Your task to perform on an android device: turn on the 12-hour format for clock Image 0: 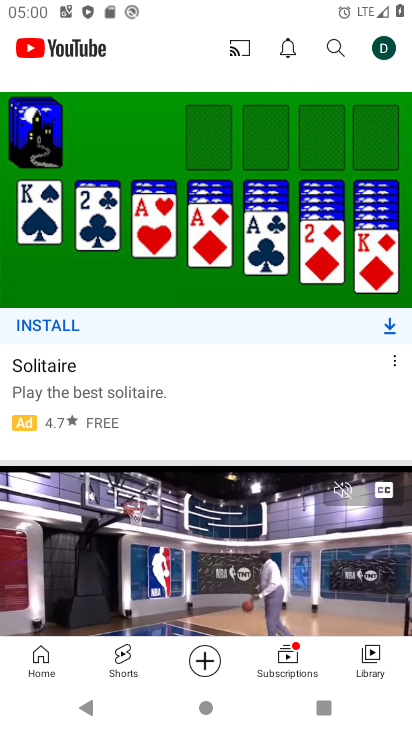
Step 0: press home button
Your task to perform on an android device: turn on the 12-hour format for clock Image 1: 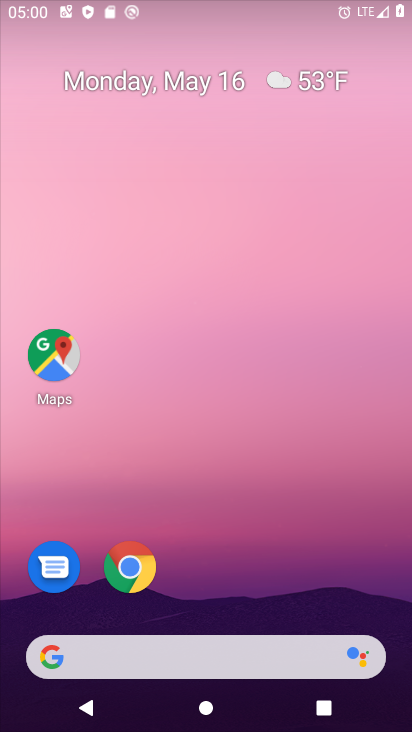
Step 1: drag from (380, 655) to (405, 695)
Your task to perform on an android device: turn on the 12-hour format for clock Image 2: 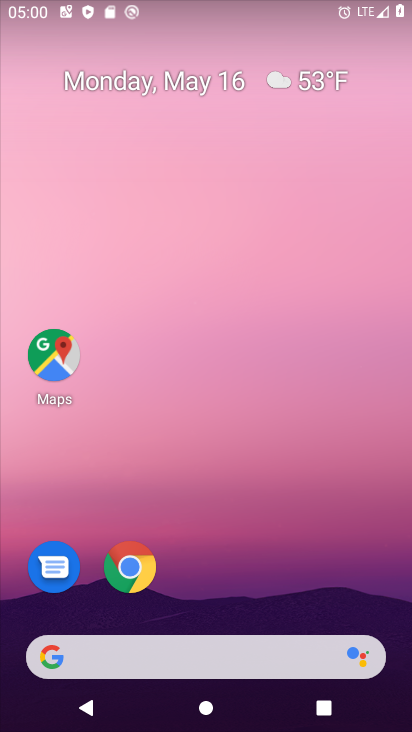
Step 2: click (220, 340)
Your task to perform on an android device: turn on the 12-hour format for clock Image 3: 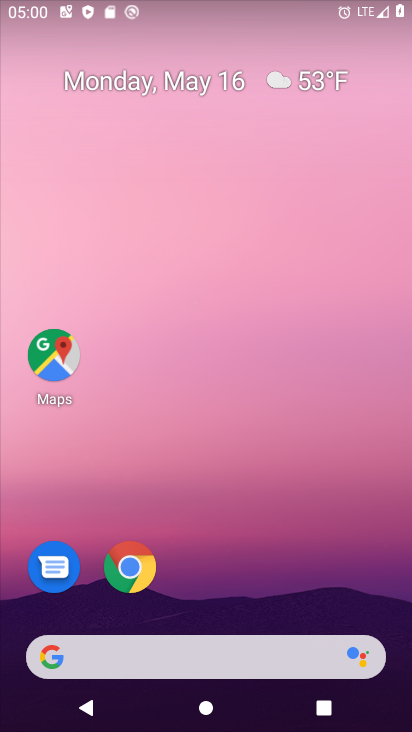
Step 3: drag from (227, 660) to (268, 143)
Your task to perform on an android device: turn on the 12-hour format for clock Image 4: 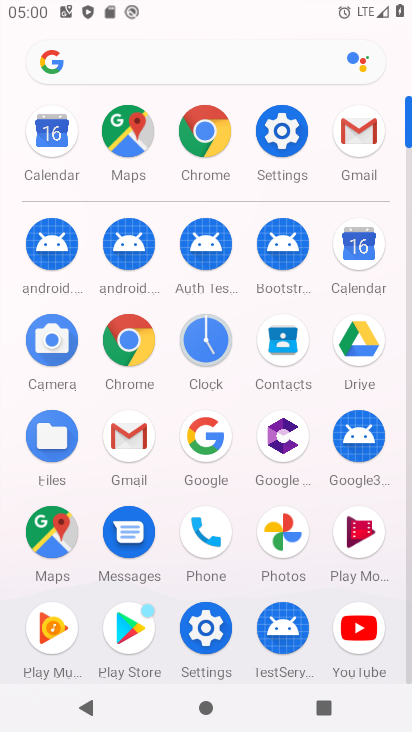
Step 4: click (212, 331)
Your task to perform on an android device: turn on the 12-hour format for clock Image 5: 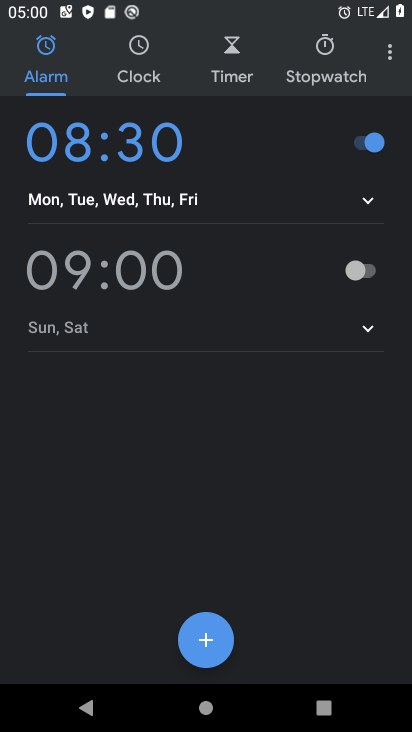
Step 5: click (371, 51)
Your task to perform on an android device: turn on the 12-hour format for clock Image 6: 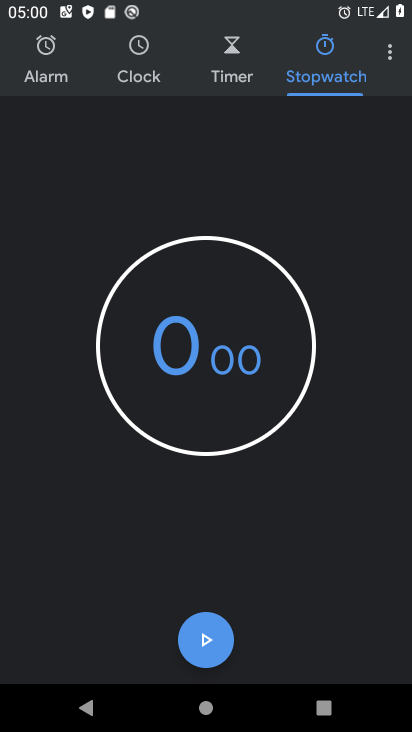
Step 6: click (398, 50)
Your task to perform on an android device: turn on the 12-hour format for clock Image 7: 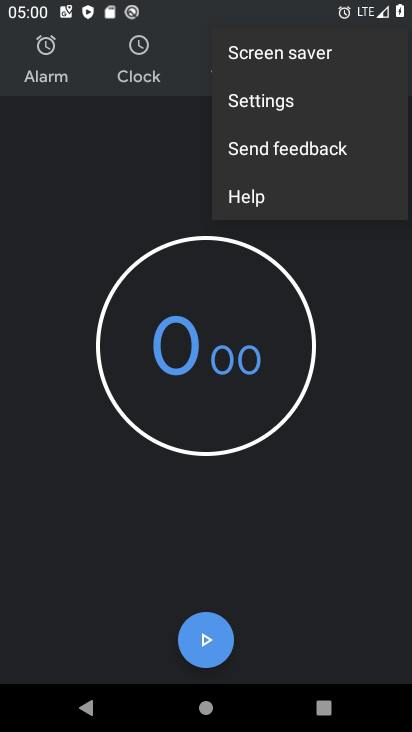
Step 7: click (316, 451)
Your task to perform on an android device: turn on the 12-hour format for clock Image 8: 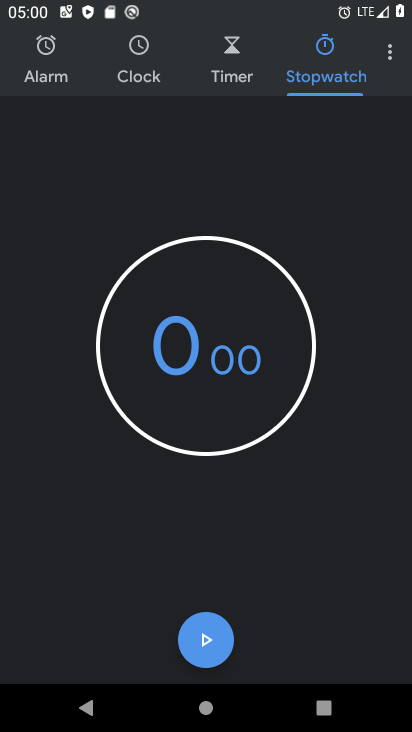
Step 8: click (386, 58)
Your task to perform on an android device: turn on the 12-hour format for clock Image 9: 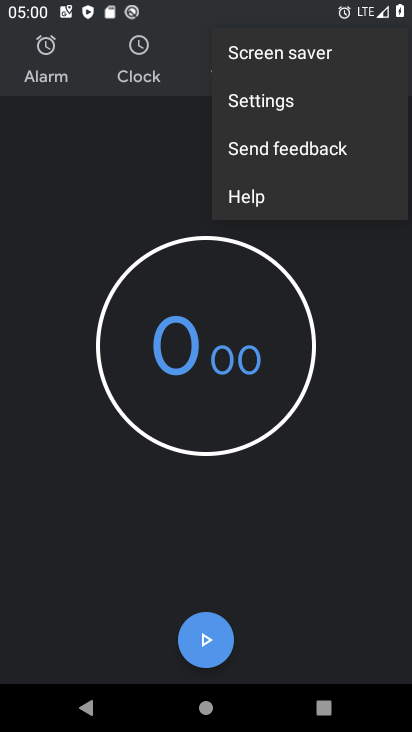
Step 9: click (283, 94)
Your task to perform on an android device: turn on the 12-hour format for clock Image 10: 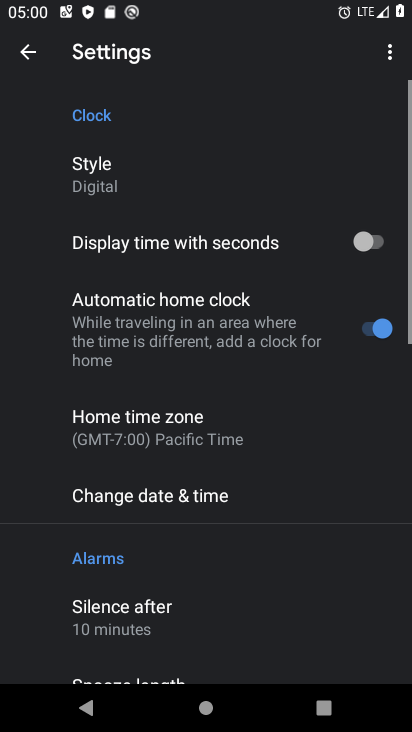
Step 10: drag from (277, 568) to (266, 221)
Your task to perform on an android device: turn on the 12-hour format for clock Image 11: 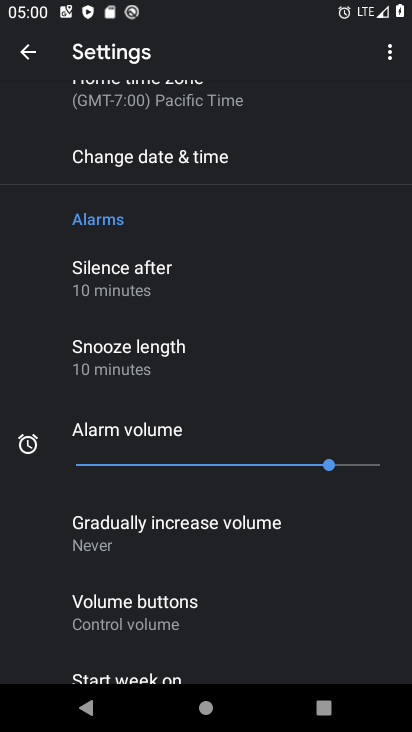
Step 11: click (203, 151)
Your task to perform on an android device: turn on the 12-hour format for clock Image 12: 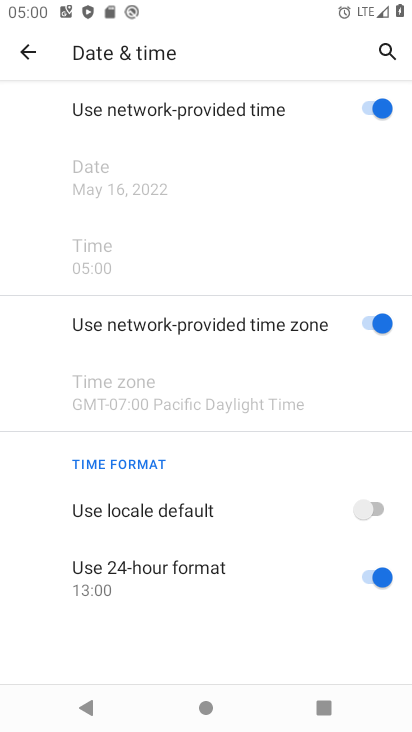
Step 12: click (363, 575)
Your task to perform on an android device: turn on the 12-hour format for clock Image 13: 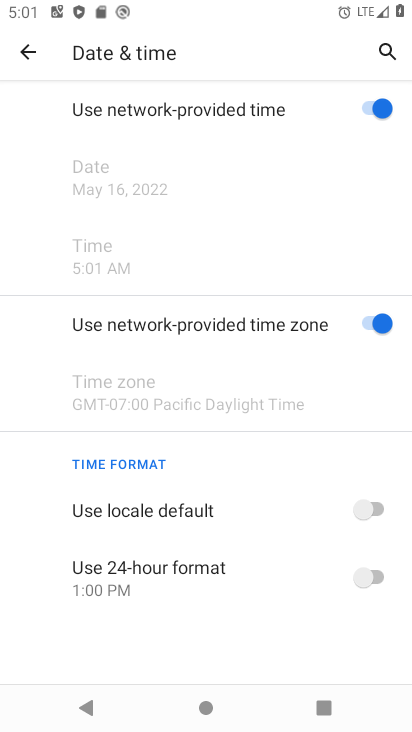
Step 13: task complete